Your task to perform on an android device: turn off location history Image 0: 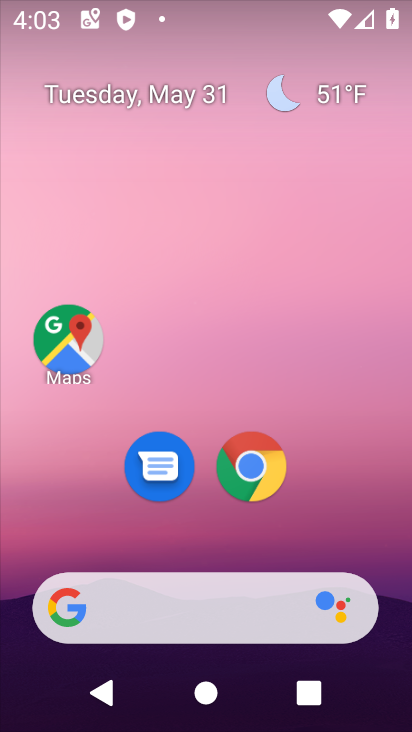
Step 0: drag from (212, 558) to (211, 78)
Your task to perform on an android device: turn off location history Image 1: 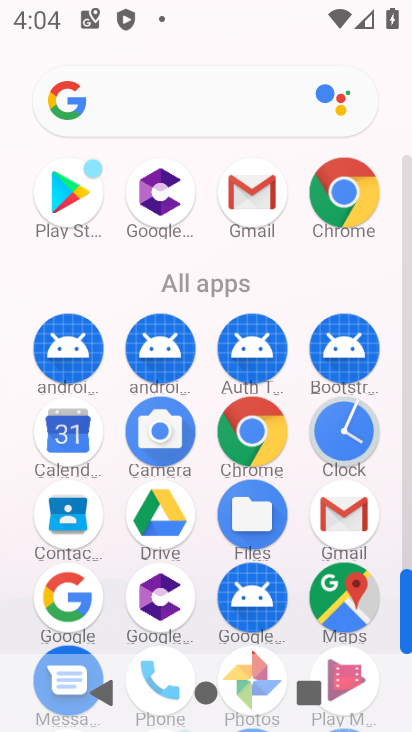
Step 1: drag from (205, 632) to (210, 85)
Your task to perform on an android device: turn off location history Image 2: 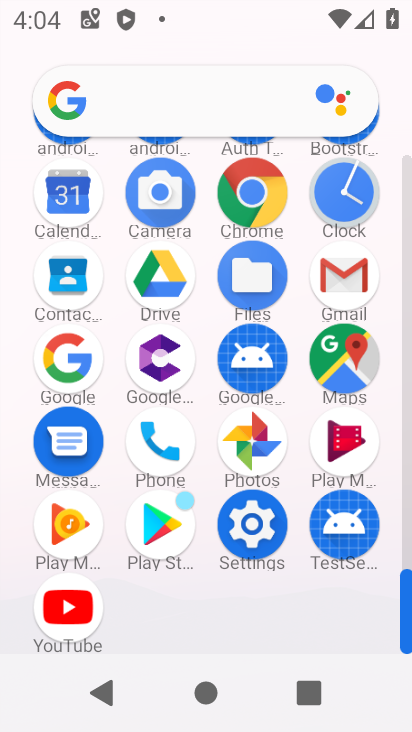
Step 2: click (252, 520)
Your task to perform on an android device: turn off location history Image 3: 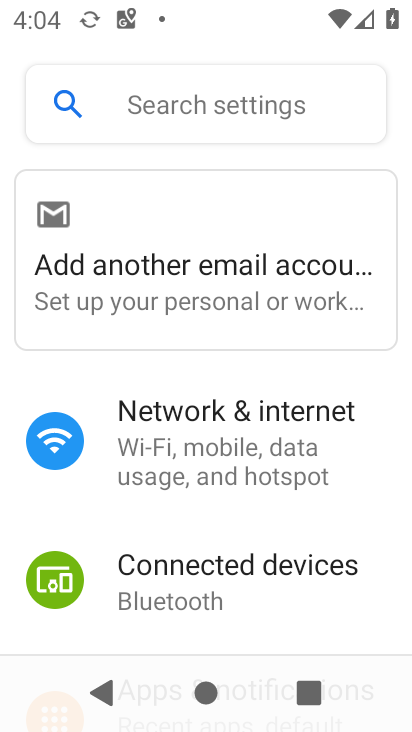
Step 3: drag from (225, 626) to (256, 101)
Your task to perform on an android device: turn off location history Image 4: 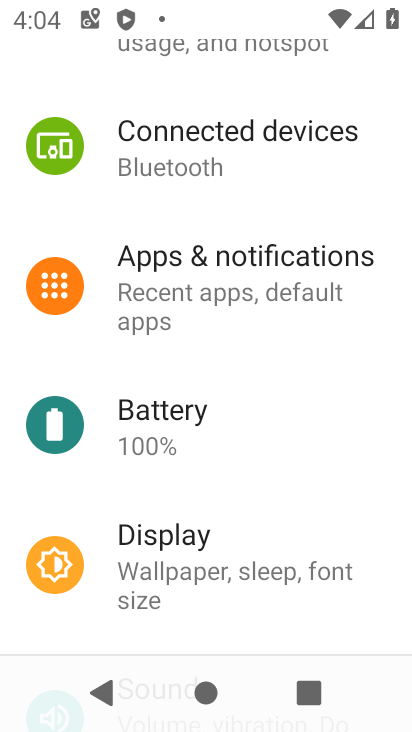
Step 4: drag from (225, 613) to (223, 145)
Your task to perform on an android device: turn off location history Image 5: 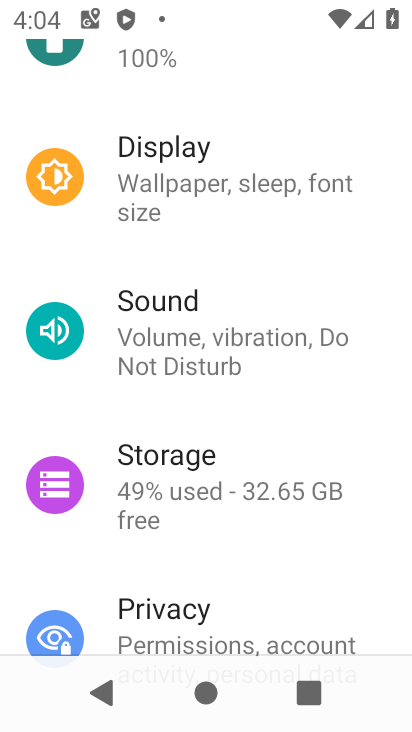
Step 5: drag from (227, 614) to (224, 175)
Your task to perform on an android device: turn off location history Image 6: 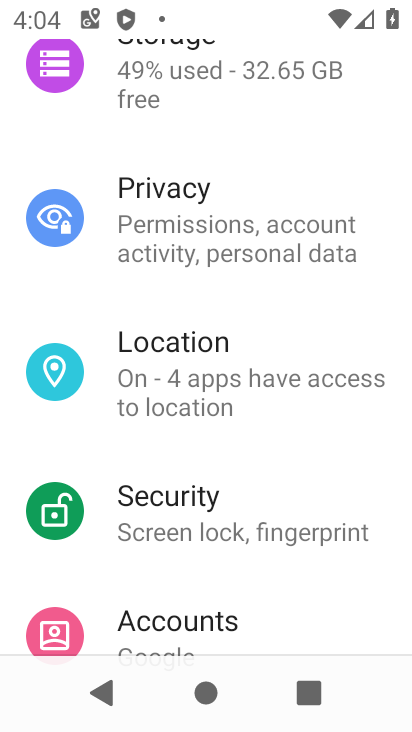
Step 6: click (256, 352)
Your task to perform on an android device: turn off location history Image 7: 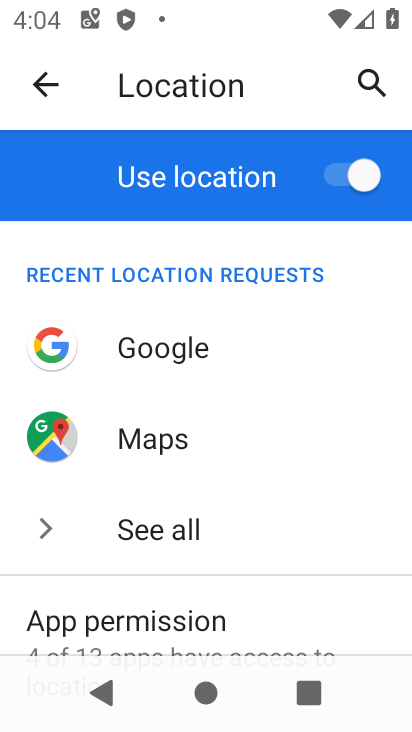
Step 7: drag from (237, 613) to (256, 128)
Your task to perform on an android device: turn off location history Image 8: 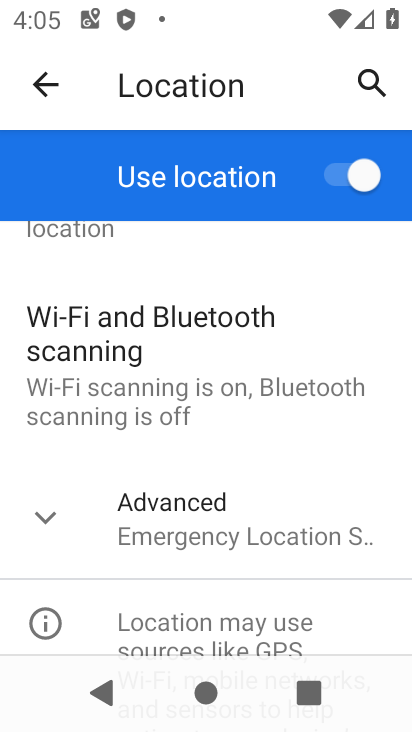
Step 8: click (62, 509)
Your task to perform on an android device: turn off location history Image 9: 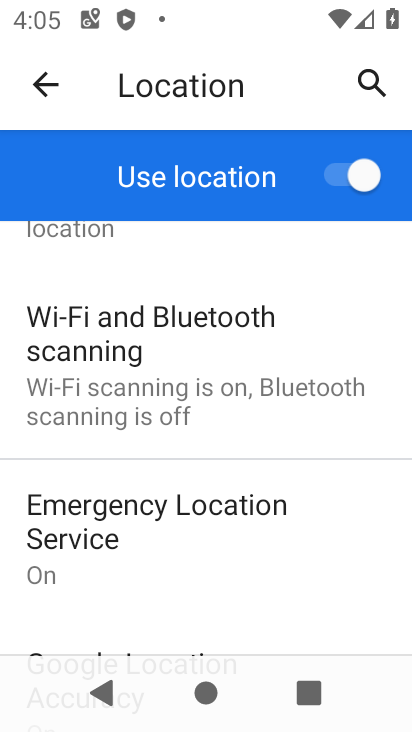
Step 9: drag from (184, 622) to (205, 197)
Your task to perform on an android device: turn off location history Image 10: 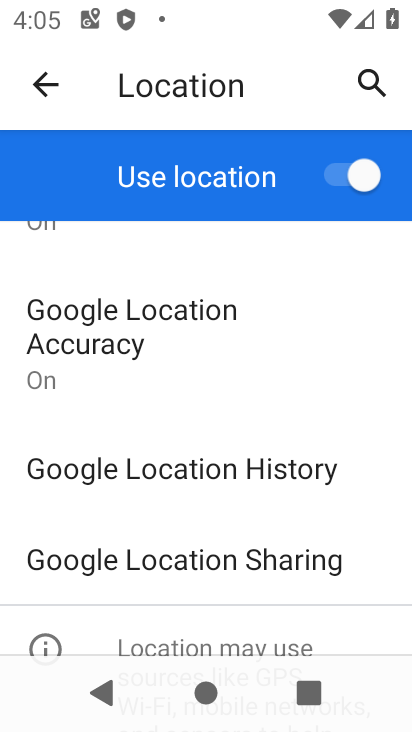
Step 10: click (213, 465)
Your task to perform on an android device: turn off location history Image 11: 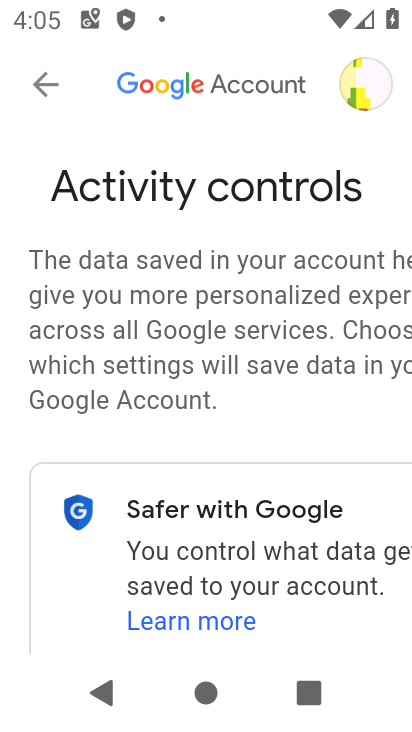
Step 11: drag from (279, 620) to (305, 87)
Your task to perform on an android device: turn off location history Image 12: 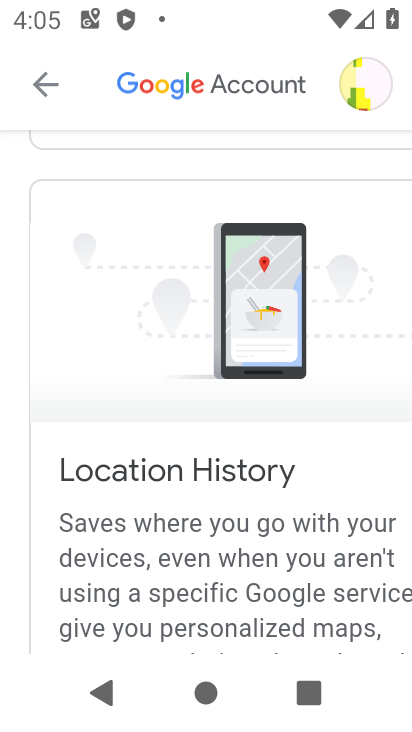
Step 12: drag from (256, 604) to (237, 113)
Your task to perform on an android device: turn off location history Image 13: 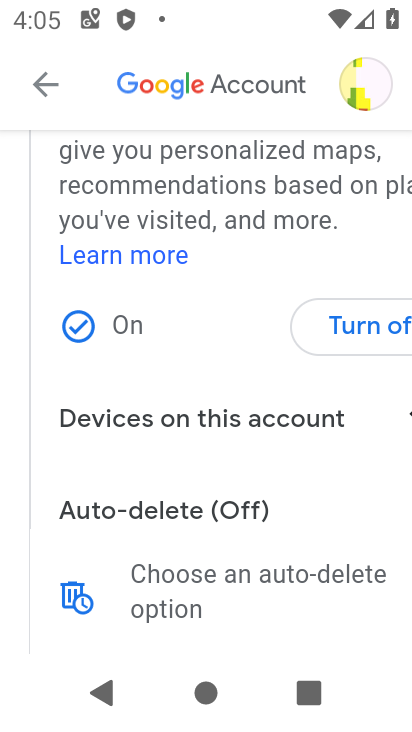
Step 13: click (365, 326)
Your task to perform on an android device: turn off location history Image 14: 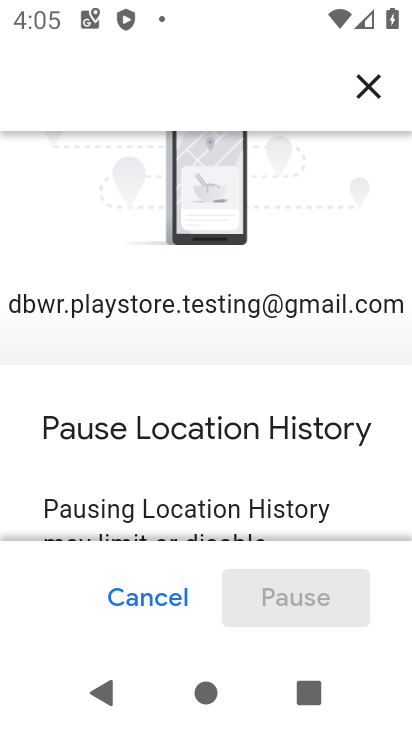
Step 14: drag from (271, 518) to (306, 36)
Your task to perform on an android device: turn off location history Image 15: 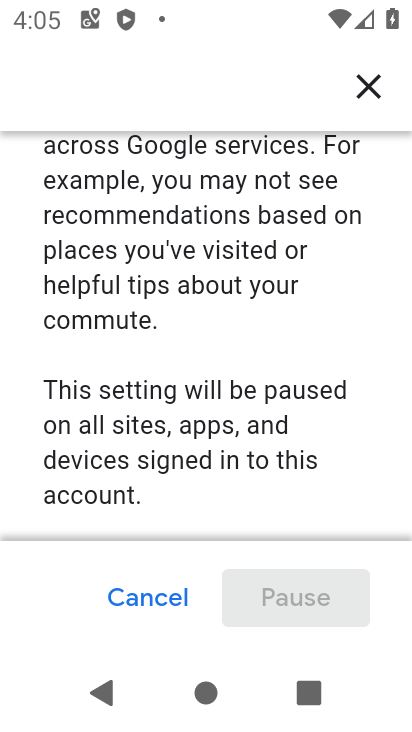
Step 15: drag from (285, 512) to (292, 108)
Your task to perform on an android device: turn off location history Image 16: 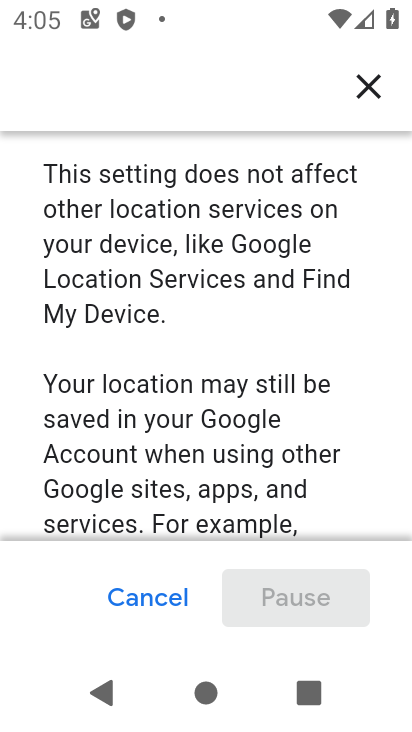
Step 16: drag from (273, 505) to (275, 123)
Your task to perform on an android device: turn off location history Image 17: 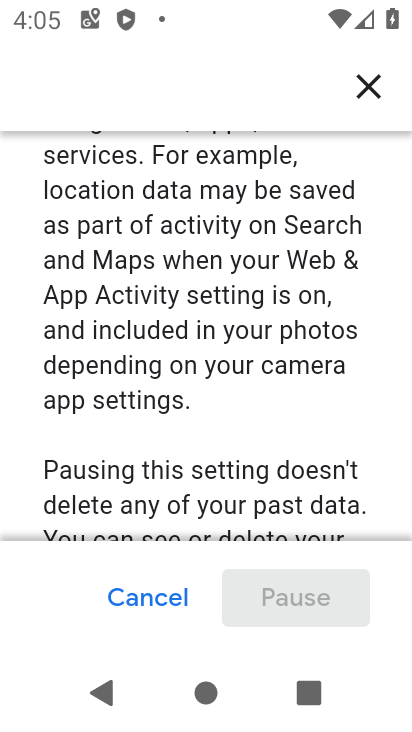
Step 17: drag from (252, 506) to (265, 79)
Your task to perform on an android device: turn off location history Image 18: 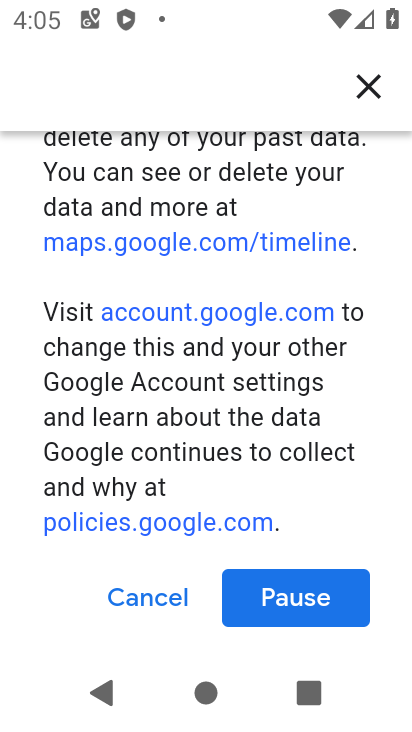
Step 18: click (294, 594)
Your task to perform on an android device: turn off location history Image 19: 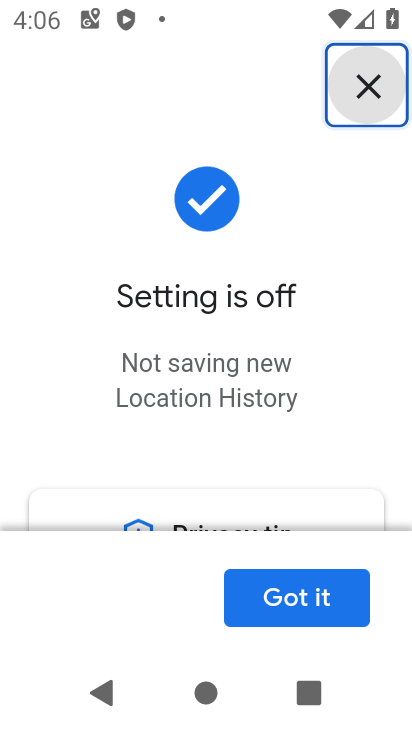
Step 19: click (304, 598)
Your task to perform on an android device: turn off location history Image 20: 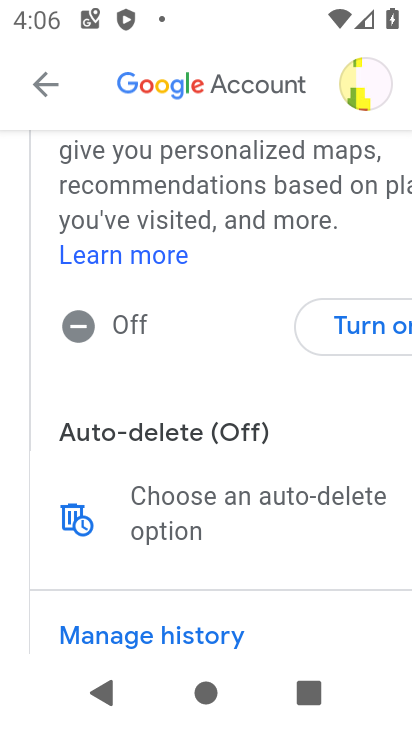
Step 20: task complete